Your task to perform on an android device: Open Maps and search for coffee Image 0: 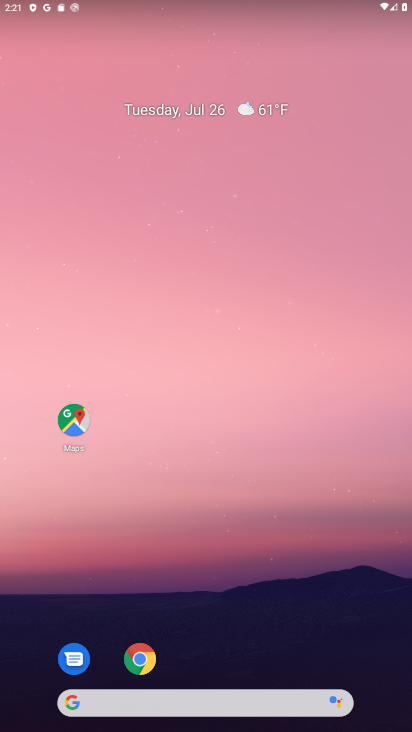
Step 0: click (78, 429)
Your task to perform on an android device: Open Maps and search for coffee Image 1: 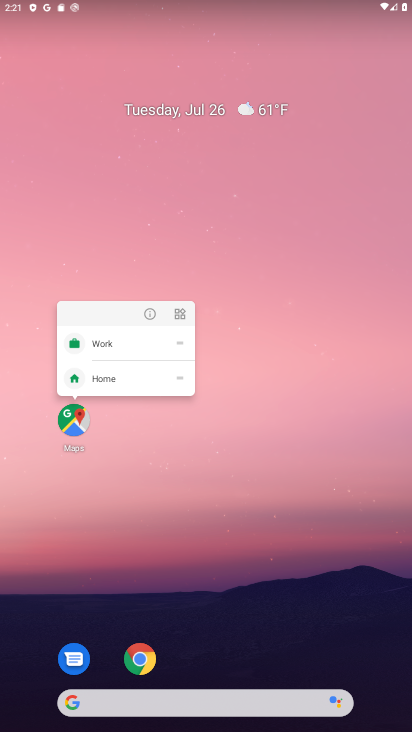
Step 1: click (79, 430)
Your task to perform on an android device: Open Maps and search for coffee Image 2: 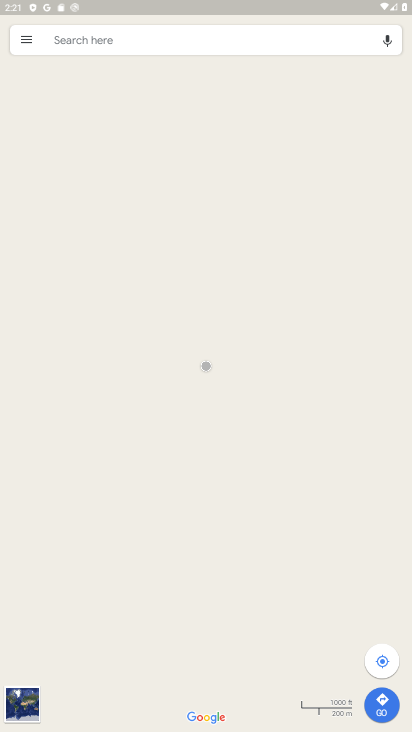
Step 2: click (108, 38)
Your task to perform on an android device: Open Maps and search for coffee Image 3: 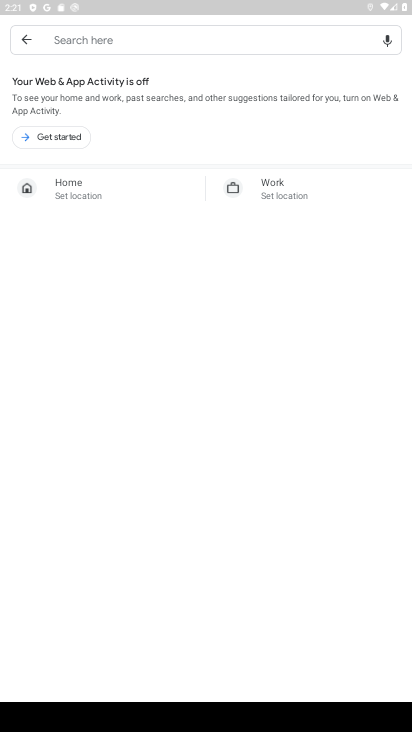
Step 3: type " coffee"
Your task to perform on an android device: Open Maps and search for coffee Image 4: 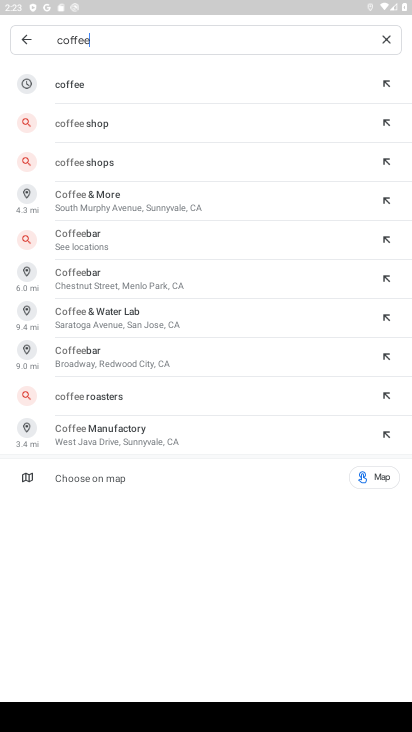
Step 4: click (86, 118)
Your task to perform on an android device: Open Maps and search for coffee Image 5: 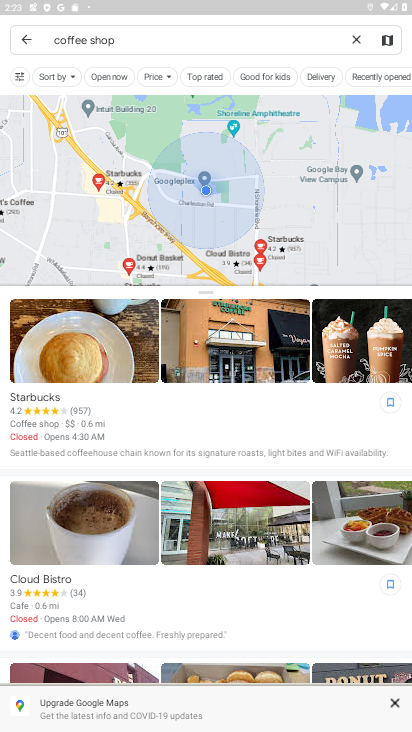
Step 5: task complete